Your task to perform on an android device: Turn on the flashlight Image 0: 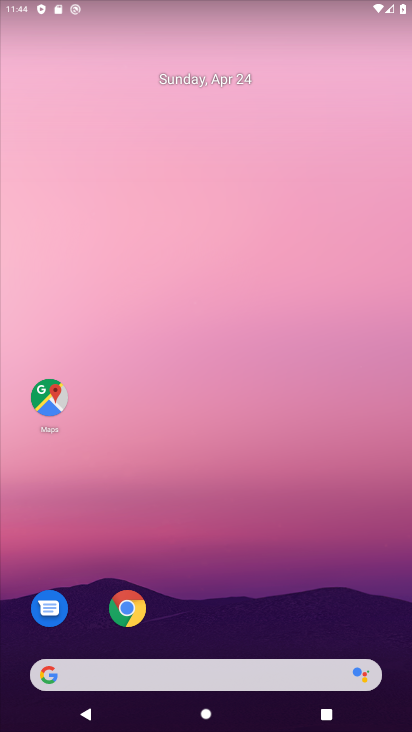
Step 0: drag from (232, 690) to (228, 77)
Your task to perform on an android device: Turn on the flashlight Image 1: 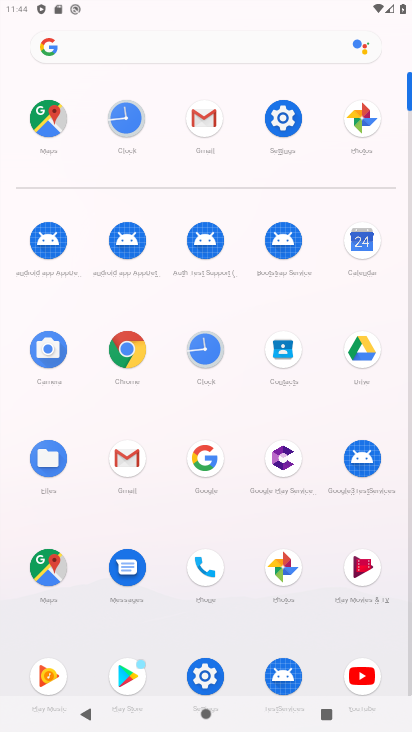
Step 1: click (282, 119)
Your task to perform on an android device: Turn on the flashlight Image 2: 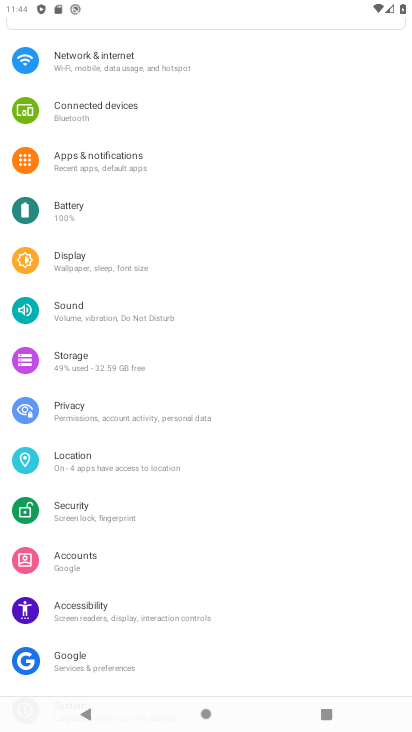
Step 2: task complete